Your task to perform on an android device: allow notifications from all sites in the chrome app Image 0: 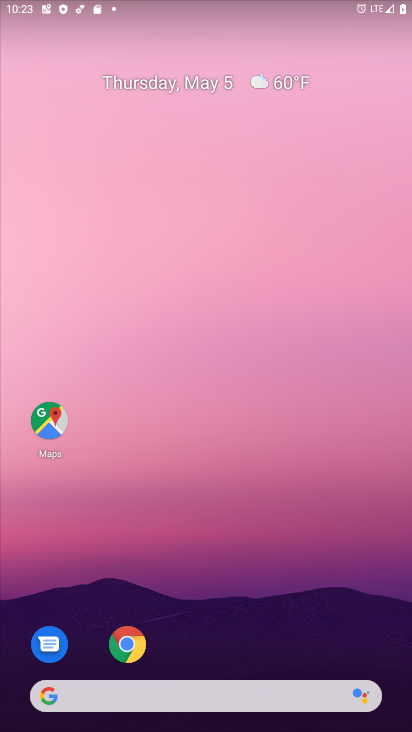
Step 0: click (130, 647)
Your task to perform on an android device: allow notifications from all sites in the chrome app Image 1: 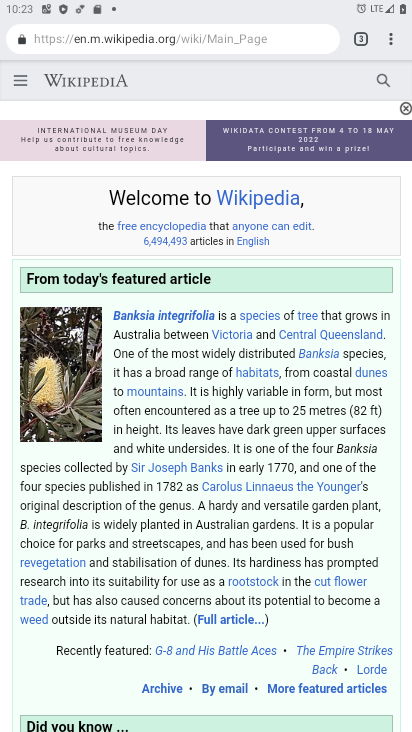
Step 1: drag from (391, 40) to (244, 471)
Your task to perform on an android device: allow notifications from all sites in the chrome app Image 2: 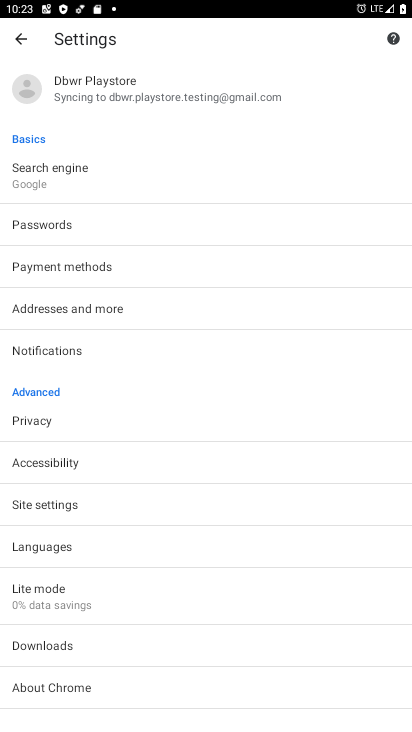
Step 2: click (53, 500)
Your task to perform on an android device: allow notifications from all sites in the chrome app Image 3: 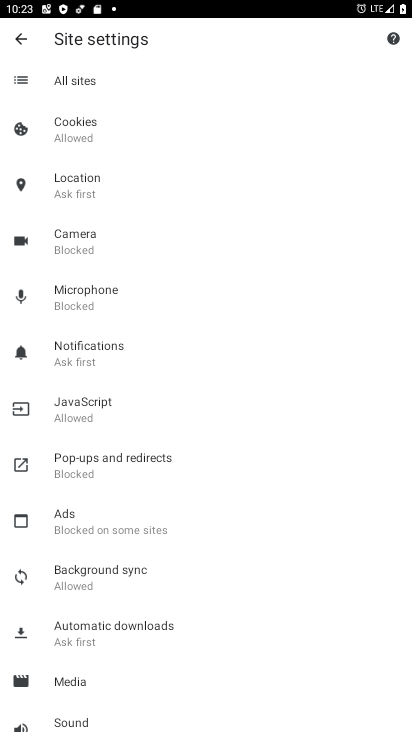
Step 3: click (93, 349)
Your task to perform on an android device: allow notifications from all sites in the chrome app Image 4: 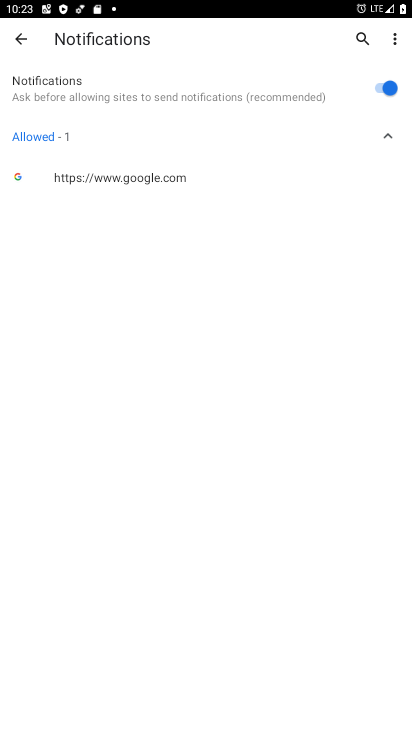
Step 4: task complete